Your task to perform on an android device: What's on my calendar tomorrow? Image 0: 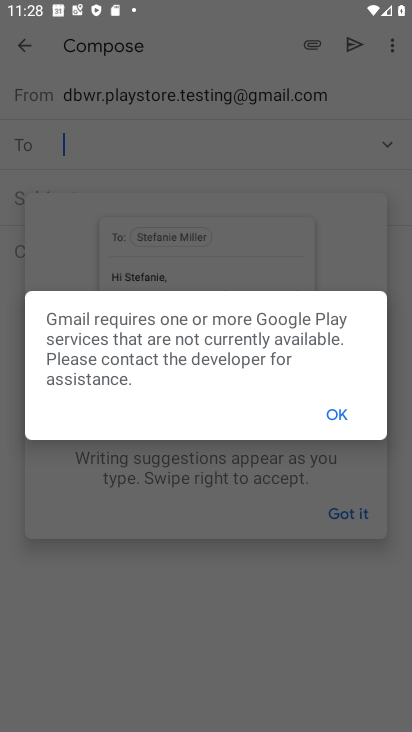
Step 0: press home button
Your task to perform on an android device: What's on my calendar tomorrow? Image 1: 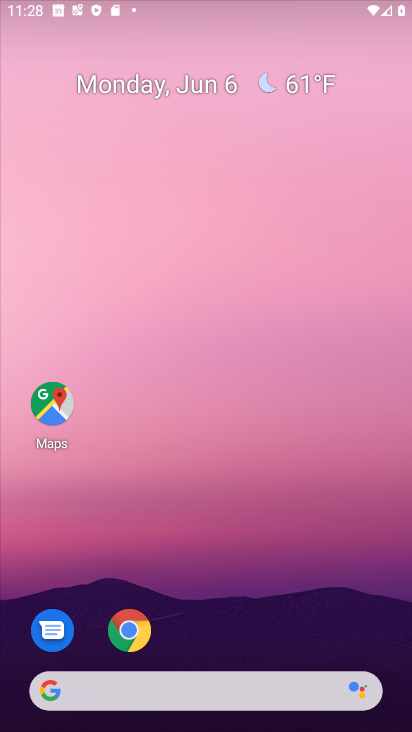
Step 1: drag from (327, 619) to (332, 159)
Your task to perform on an android device: What's on my calendar tomorrow? Image 2: 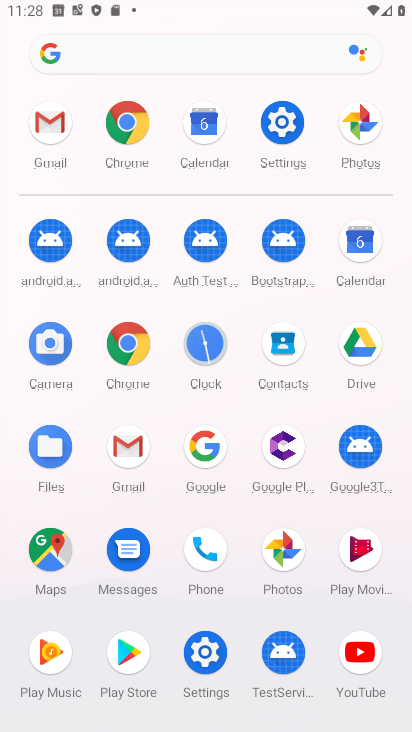
Step 2: click (121, 125)
Your task to perform on an android device: What's on my calendar tomorrow? Image 3: 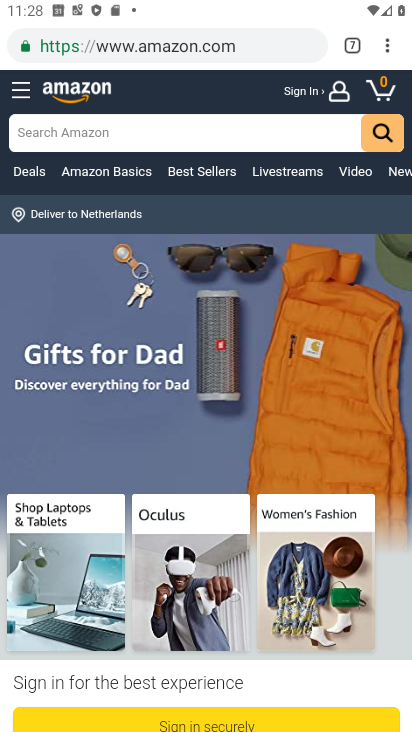
Step 3: click (152, 50)
Your task to perform on an android device: What's on my calendar tomorrow? Image 4: 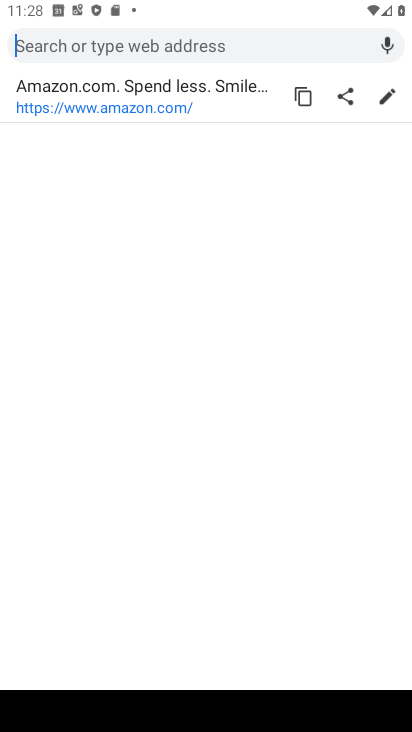
Step 4: type "what's on my calendar tomorrow"
Your task to perform on an android device: What's on my calendar tomorrow? Image 5: 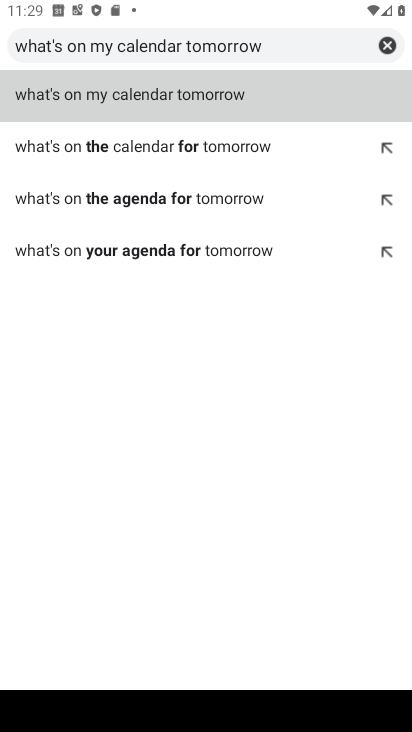
Step 5: click (243, 102)
Your task to perform on an android device: What's on my calendar tomorrow? Image 6: 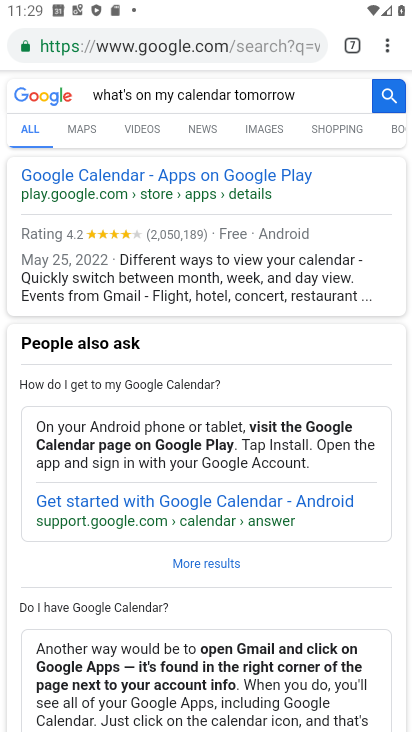
Step 6: task complete